Your task to perform on an android device: Is it going to rain tomorrow? Image 0: 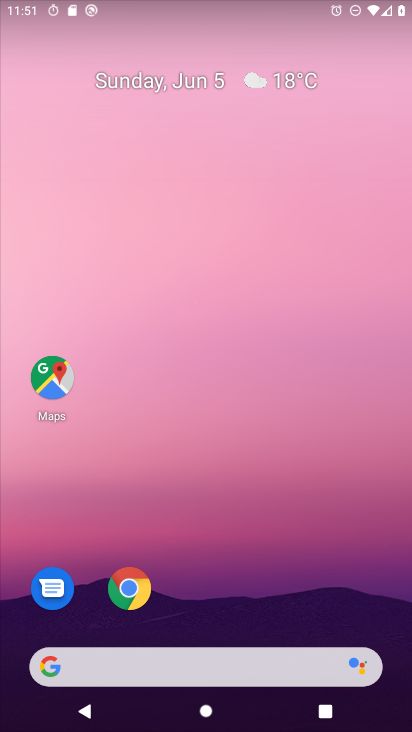
Step 0: click (299, 81)
Your task to perform on an android device: Is it going to rain tomorrow? Image 1: 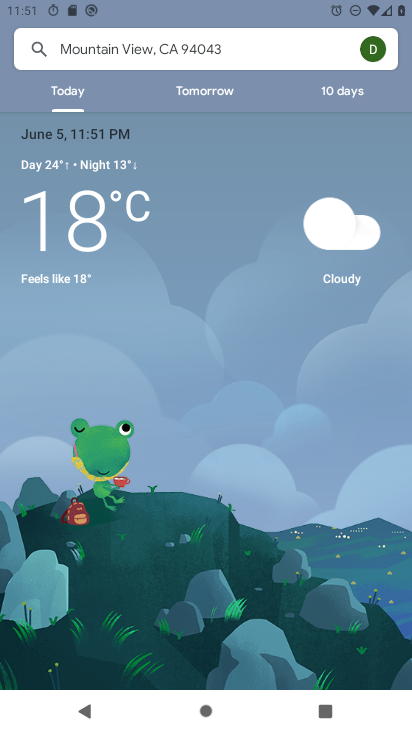
Step 1: click (199, 96)
Your task to perform on an android device: Is it going to rain tomorrow? Image 2: 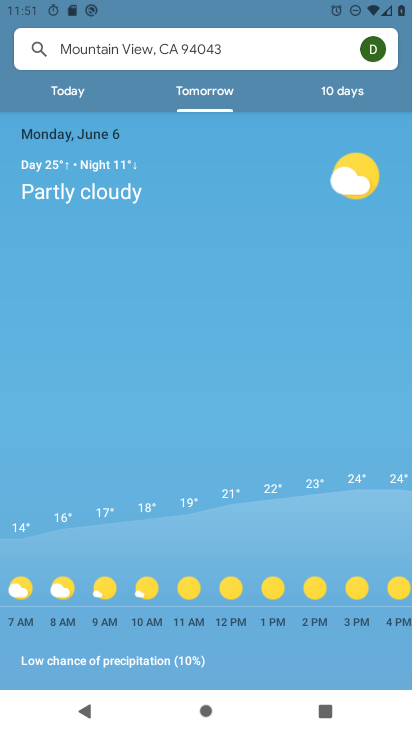
Step 2: task complete